Your task to perform on an android device: visit the assistant section in the google photos Image 0: 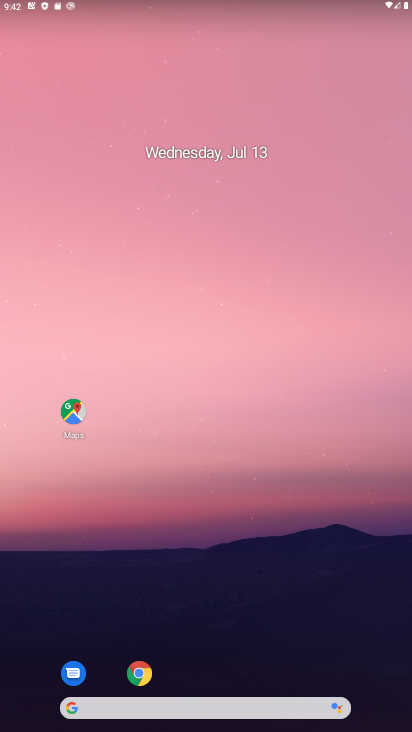
Step 0: drag from (185, 669) to (174, 149)
Your task to perform on an android device: visit the assistant section in the google photos Image 1: 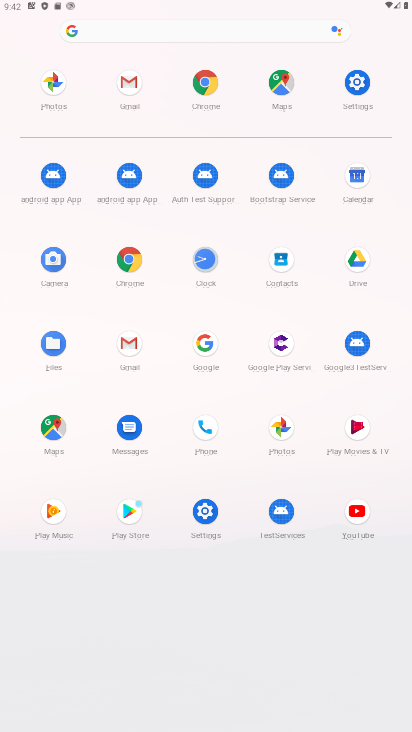
Step 1: click (277, 422)
Your task to perform on an android device: visit the assistant section in the google photos Image 2: 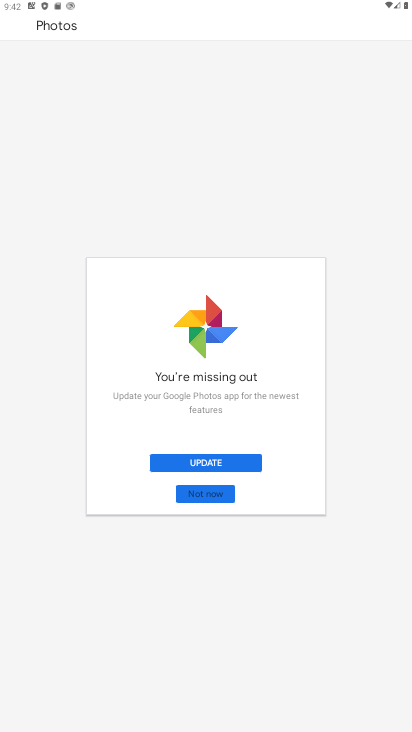
Step 2: click (206, 496)
Your task to perform on an android device: visit the assistant section in the google photos Image 3: 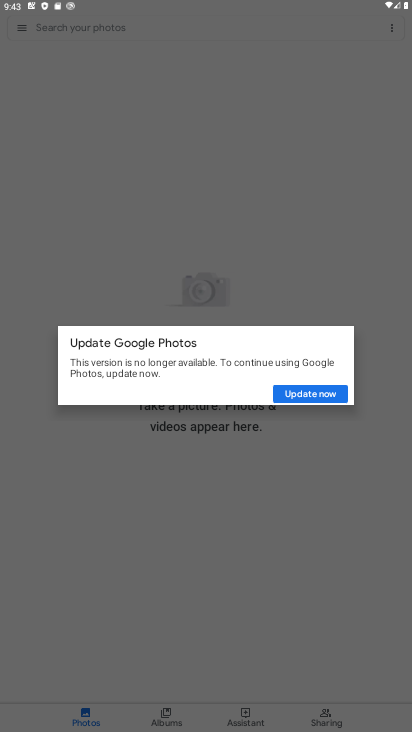
Step 3: click (300, 389)
Your task to perform on an android device: visit the assistant section in the google photos Image 4: 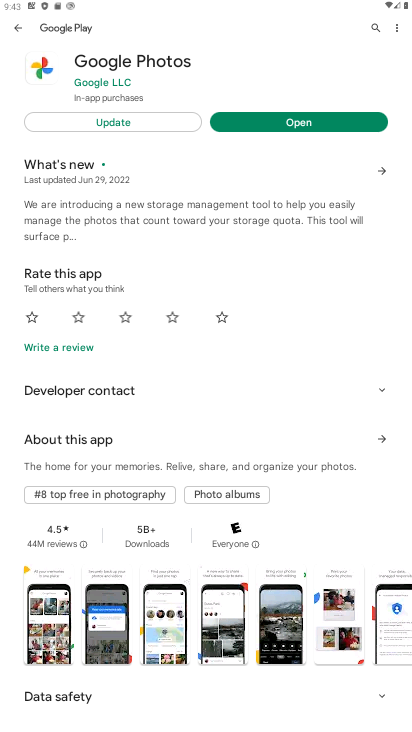
Step 4: click (248, 117)
Your task to perform on an android device: visit the assistant section in the google photos Image 5: 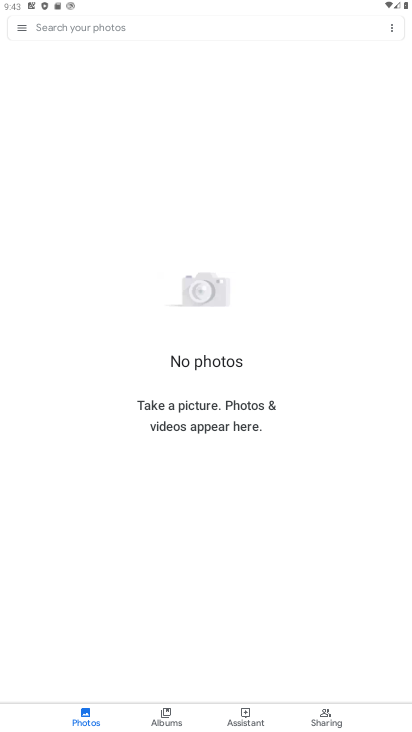
Step 5: click (241, 717)
Your task to perform on an android device: visit the assistant section in the google photos Image 6: 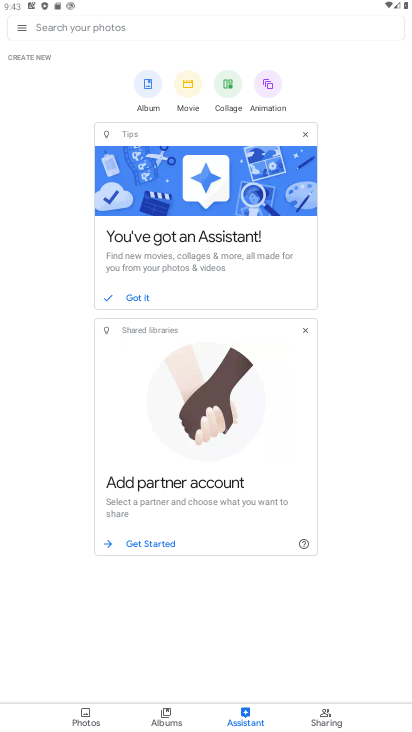
Step 6: task complete